Your task to perform on an android device: Open internet settings Image 0: 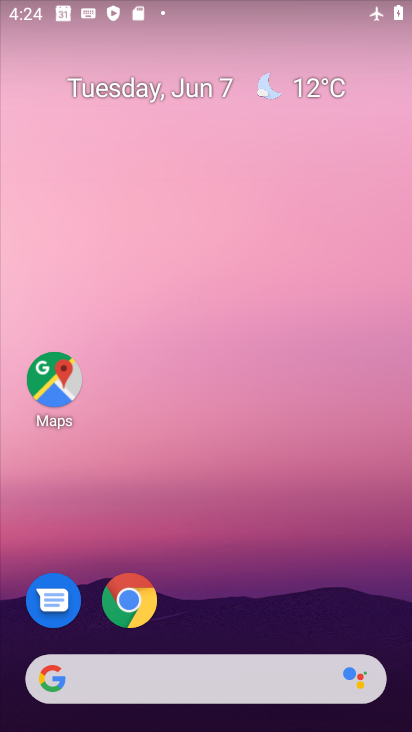
Step 0: drag from (197, 642) to (197, 221)
Your task to perform on an android device: Open internet settings Image 1: 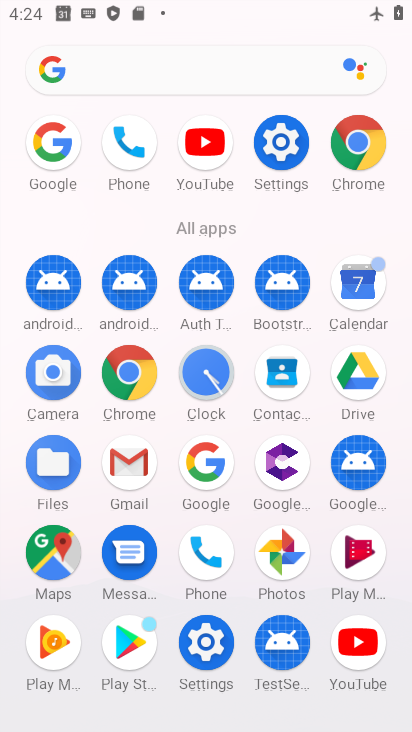
Step 1: click (276, 137)
Your task to perform on an android device: Open internet settings Image 2: 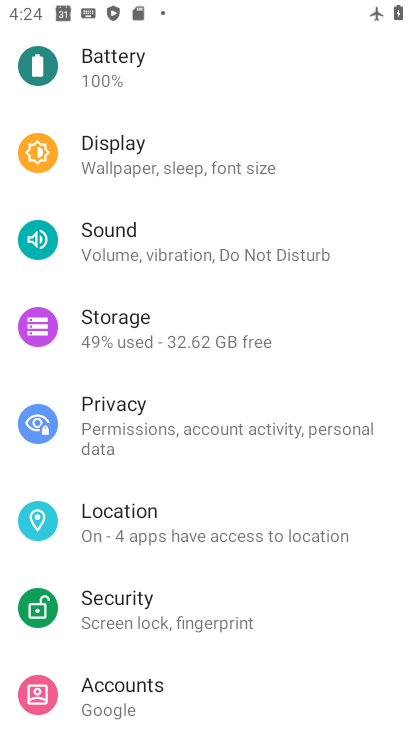
Step 2: drag from (210, 107) to (210, 531)
Your task to perform on an android device: Open internet settings Image 3: 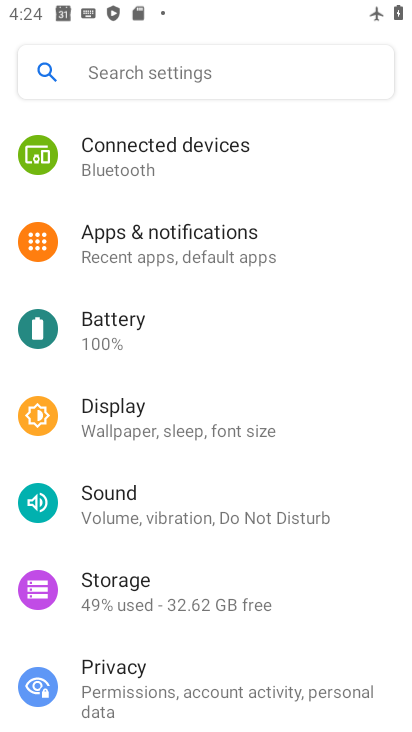
Step 3: drag from (210, 142) to (209, 489)
Your task to perform on an android device: Open internet settings Image 4: 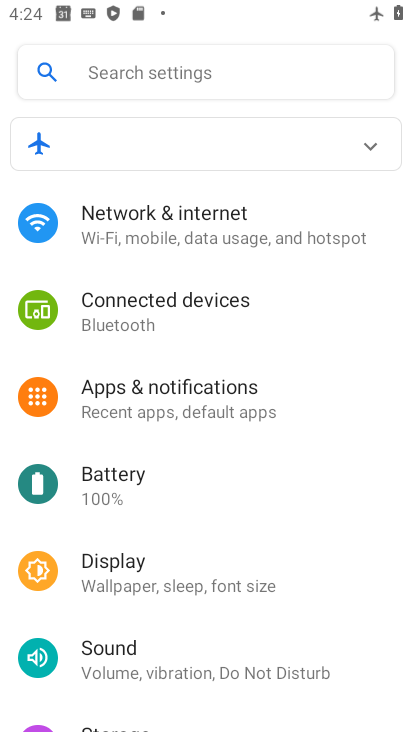
Step 4: click (197, 246)
Your task to perform on an android device: Open internet settings Image 5: 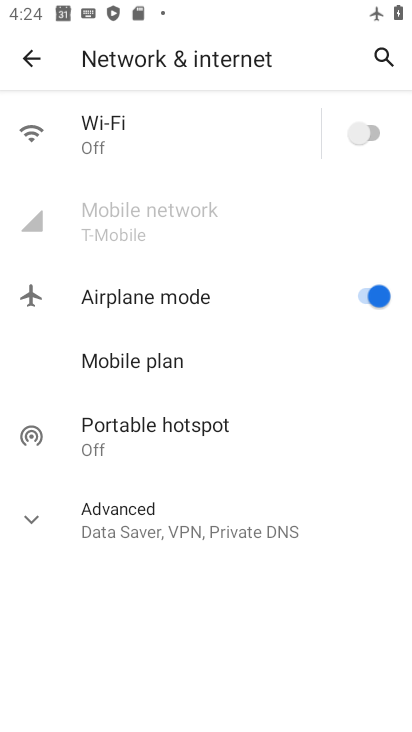
Step 5: click (182, 513)
Your task to perform on an android device: Open internet settings Image 6: 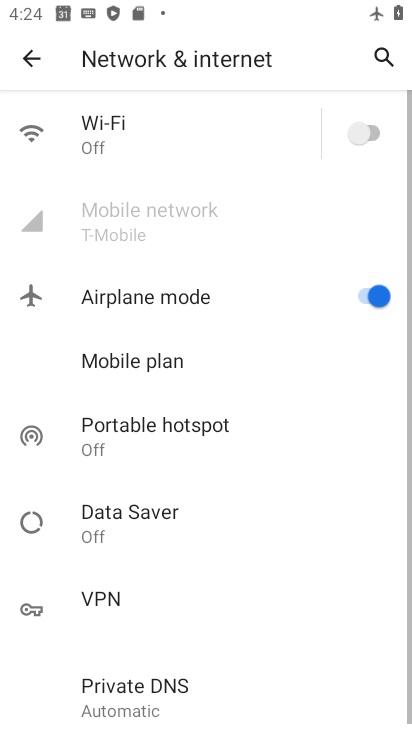
Step 6: click (361, 295)
Your task to perform on an android device: Open internet settings Image 7: 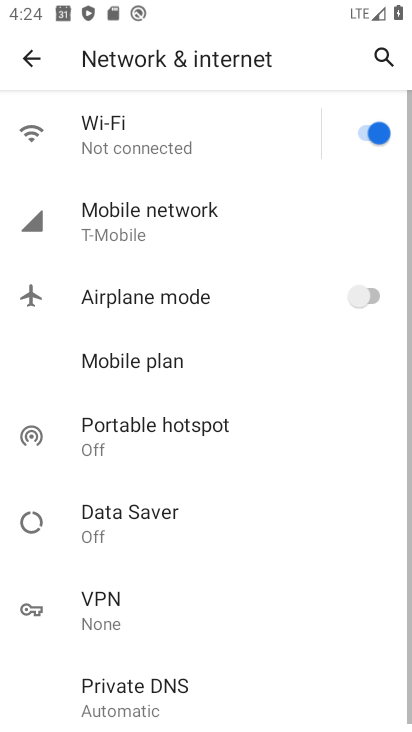
Step 7: task complete